Your task to perform on an android device: Open the map Image 0: 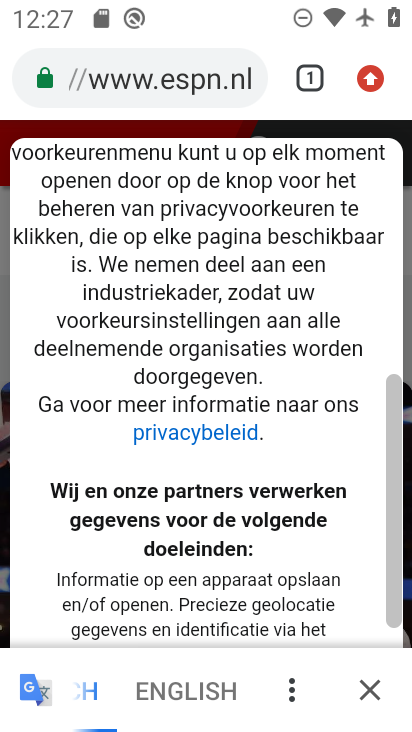
Step 0: press home button
Your task to perform on an android device: Open the map Image 1: 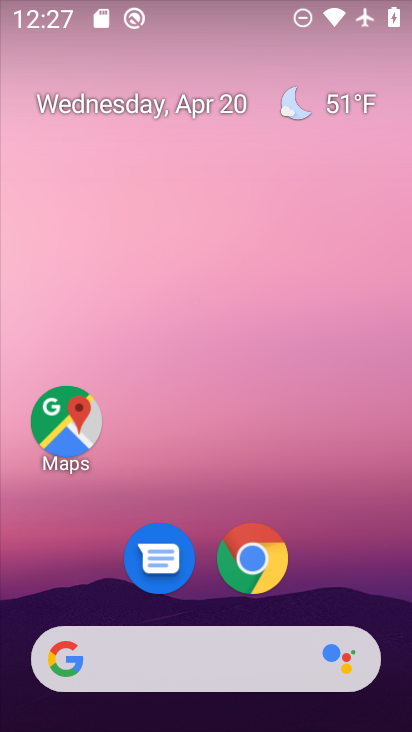
Step 1: click (65, 423)
Your task to perform on an android device: Open the map Image 2: 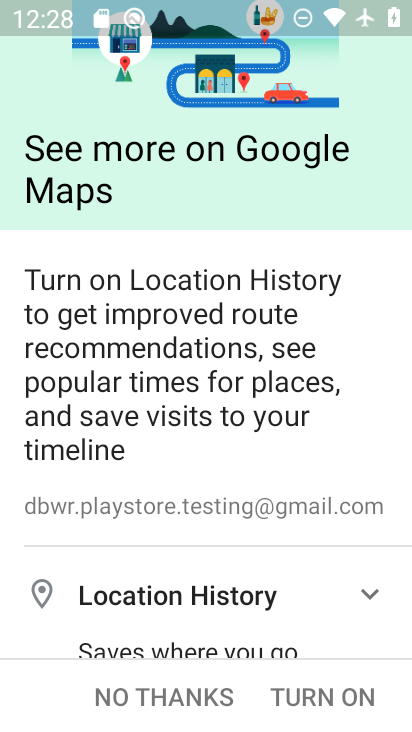
Step 2: click (168, 698)
Your task to perform on an android device: Open the map Image 3: 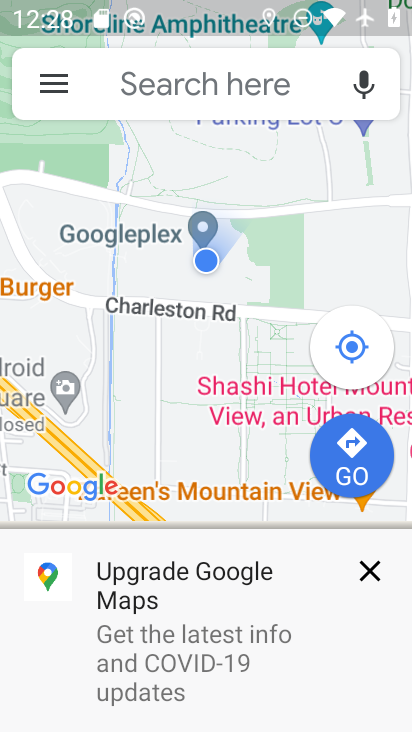
Step 3: task complete